Your task to perform on an android device: read, delete, or share a saved page in the chrome app Image 0: 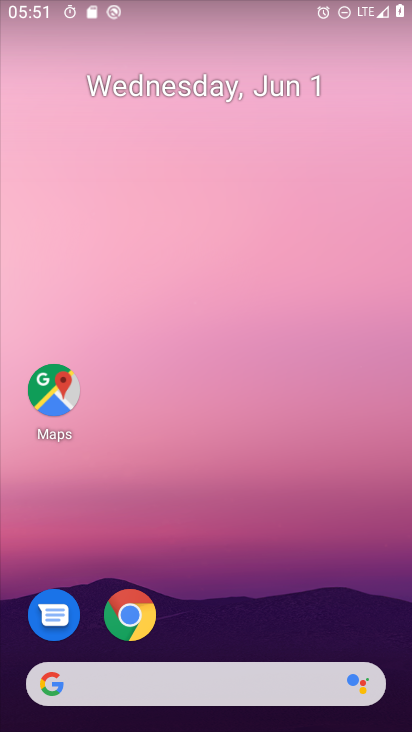
Step 0: drag from (302, 600) to (251, 14)
Your task to perform on an android device: read, delete, or share a saved page in the chrome app Image 1: 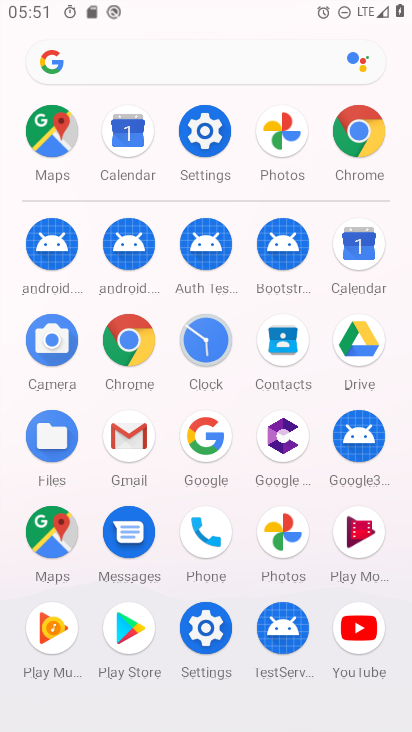
Step 1: click (129, 342)
Your task to perform on an android device: read, delete, or share a saved page in the chrome app Image 2: 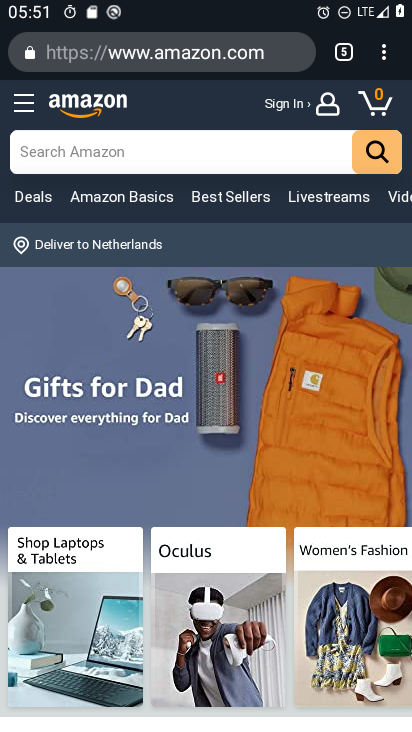
Step 2: task complete